Your task to perform on an android device: Go to Google maps Image 0: 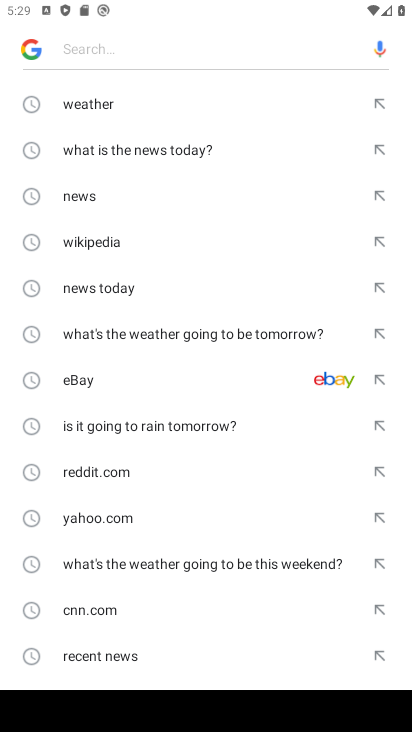
Step 0: press home button
Your task to perform on an android device: Go to Google maps Image 1: 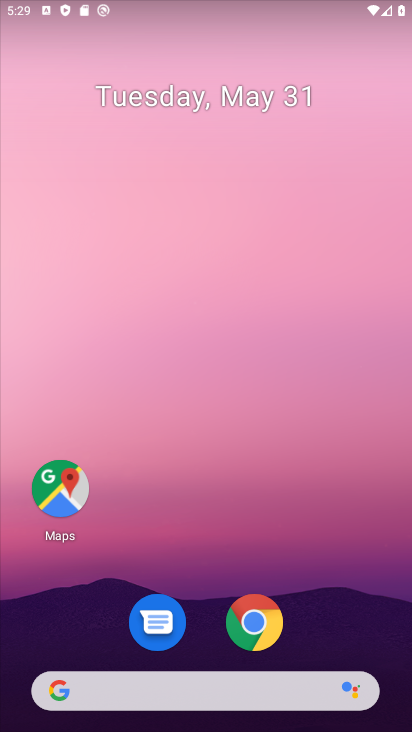
Step 1: drag from (206, 706) to (325, 23)
Your task to perform on an android device: Go to Google maps Image 2: 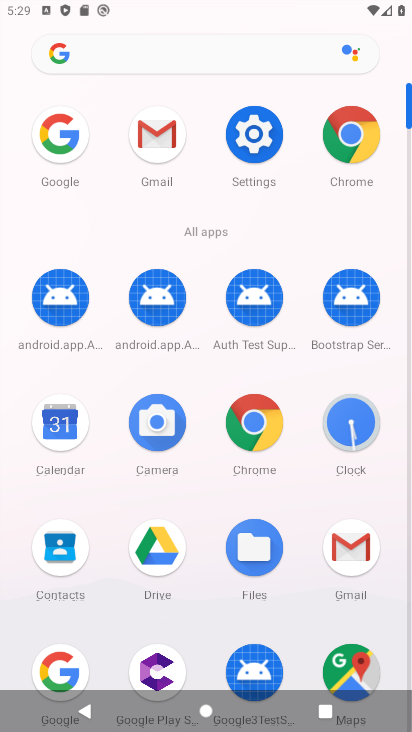
Step 2: click (341, 666)
Your task to perform on an android device: Go to Google maps Image 3: 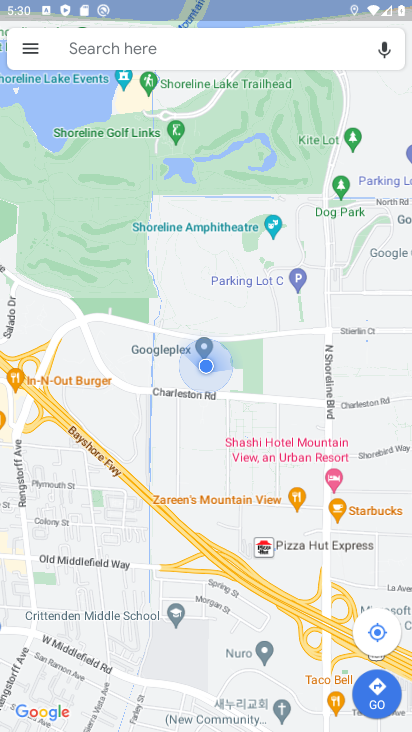
Step 3: task complete